Your task to perform on an android device: Search for "asus zenbook" on target.com, select the first entry, and add it to the cart. Image 0: 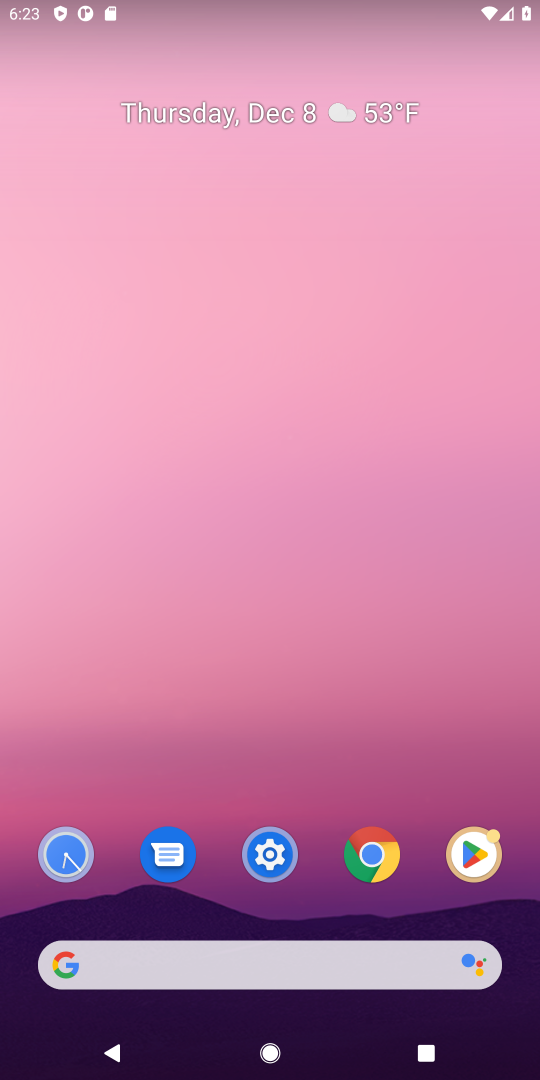
Step 0: press home button
Your task to perform on an android device: Search for "asus zenbook" on target.com, select the first entry, and add it to the cart. Image 1: 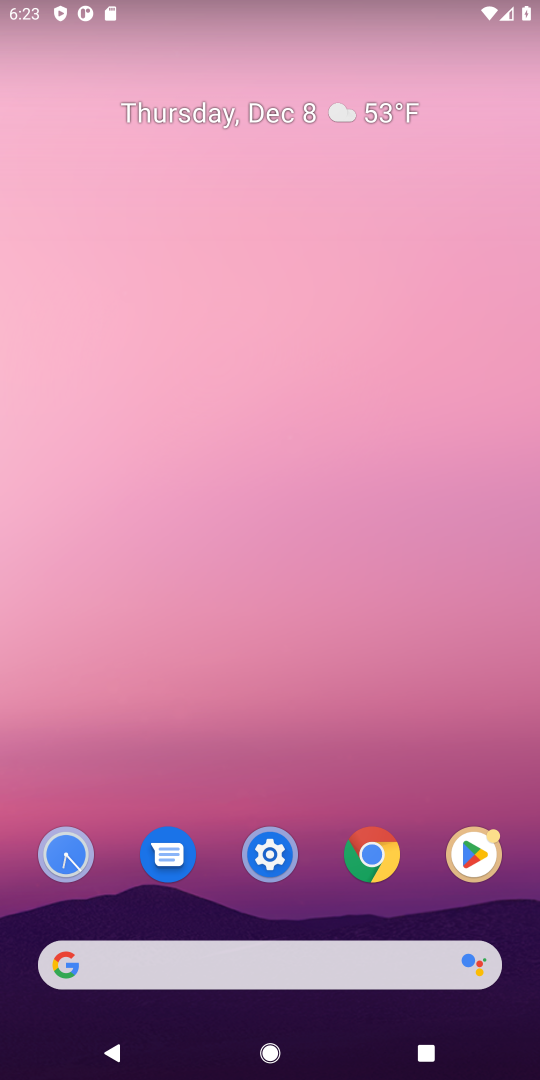
Step 1: click (96, 968)
Your task to perform on an android device: Search for "asus zenbook" on target.com, select the first entry, and add it to the cart. Image 2: 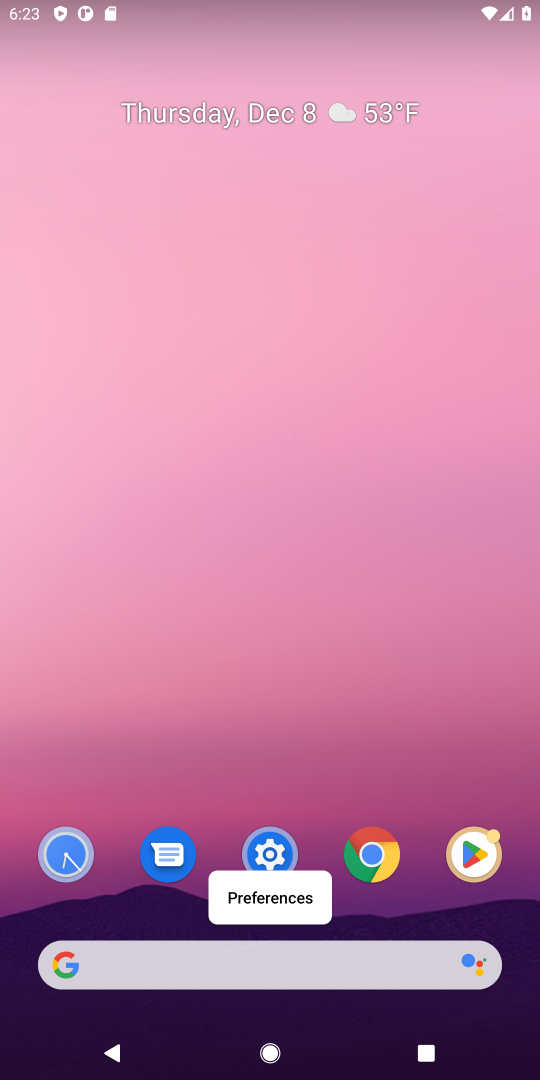
Step 2: click (99, 962)
Your task to perform on an android device: Search for "asus zenbook" on target.com, select the first entry, and add it to the cart. Image 3: 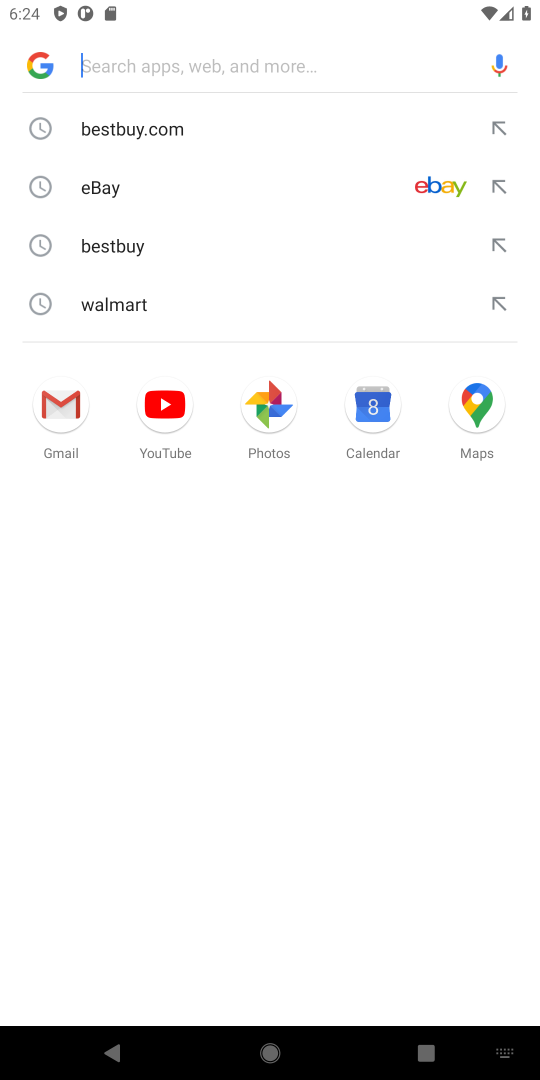
Step 3: type "target.com"
Your task to perform on an android device: Search for "asus zenbook" on target.com, select the first entry, and add it to the cart. Image 4: 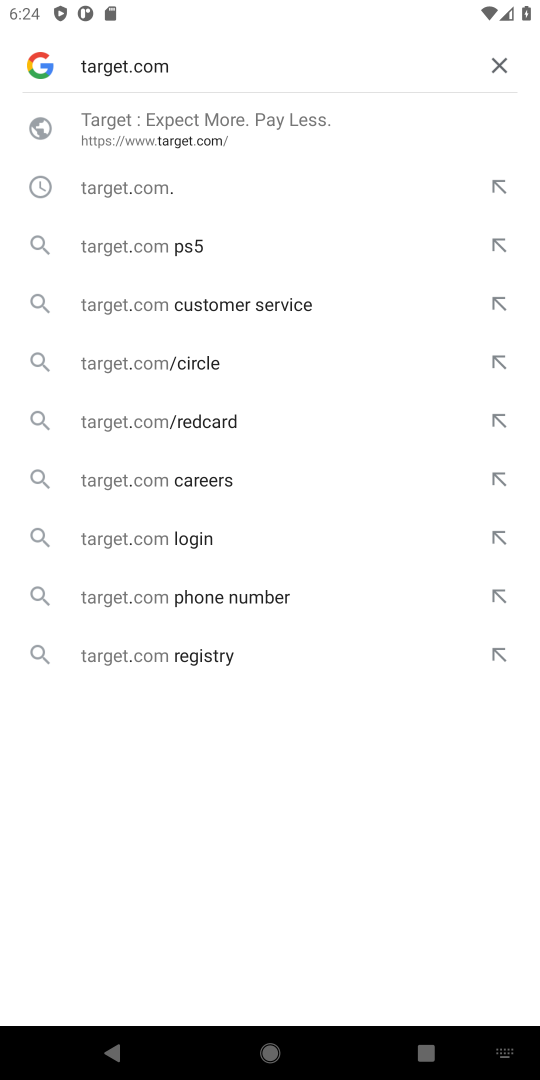
Step 4: press enter
Your task to perform on an android device: Search for "asus zenbook" on target.com, select the first entry, and add it to the cart. Image 5: 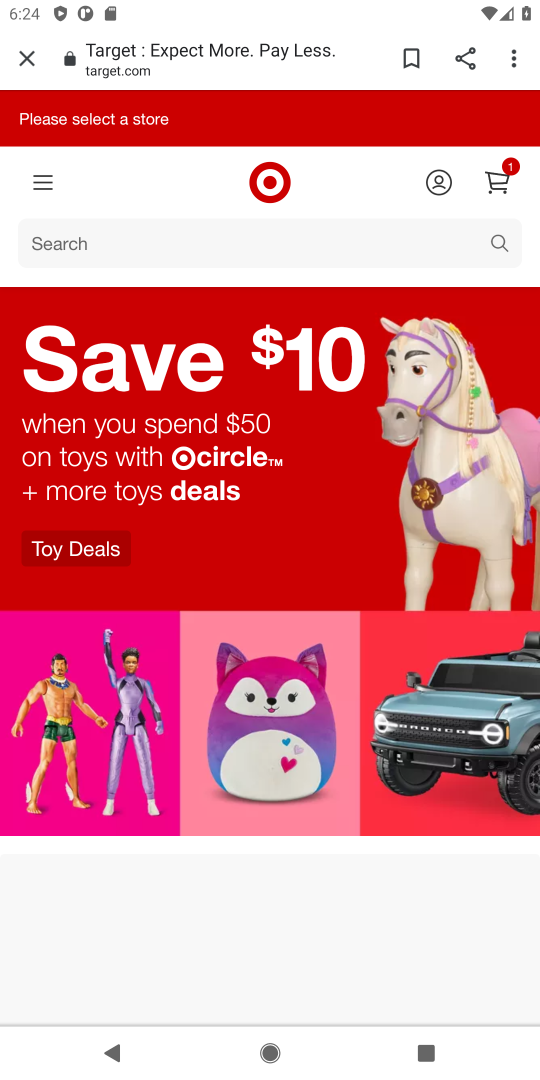
Step 5: click (49, 244)
Your task to perform on an android device: Search for "asus zenbook" on target.com, select the first entry, and add it to the cart. Image 6: 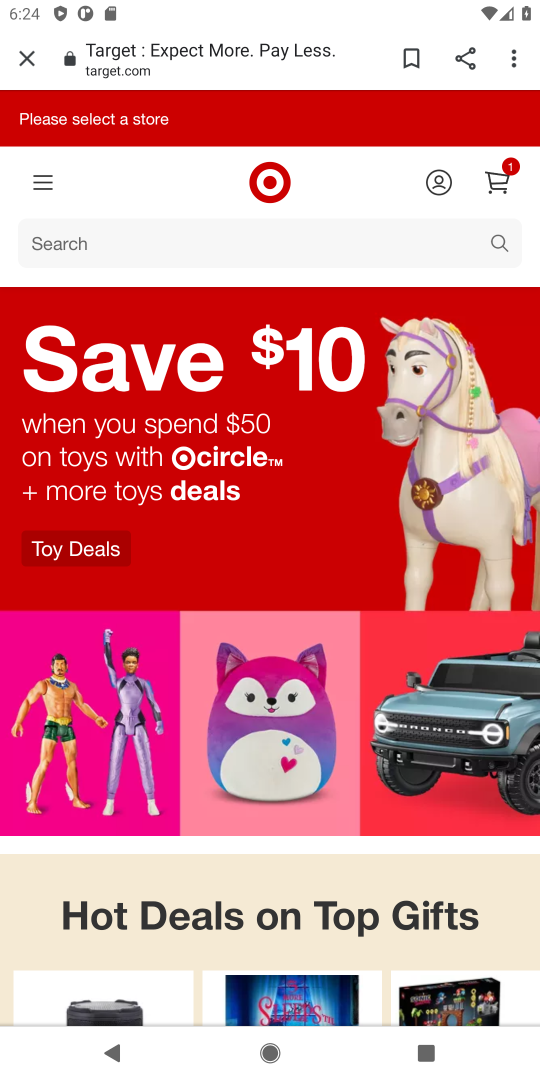
Step 6: click (61, 234)
Your task to perform on an android device: Search for "asus zenbook" on target.com, select the first entry, and add it to the cart. Image 7: 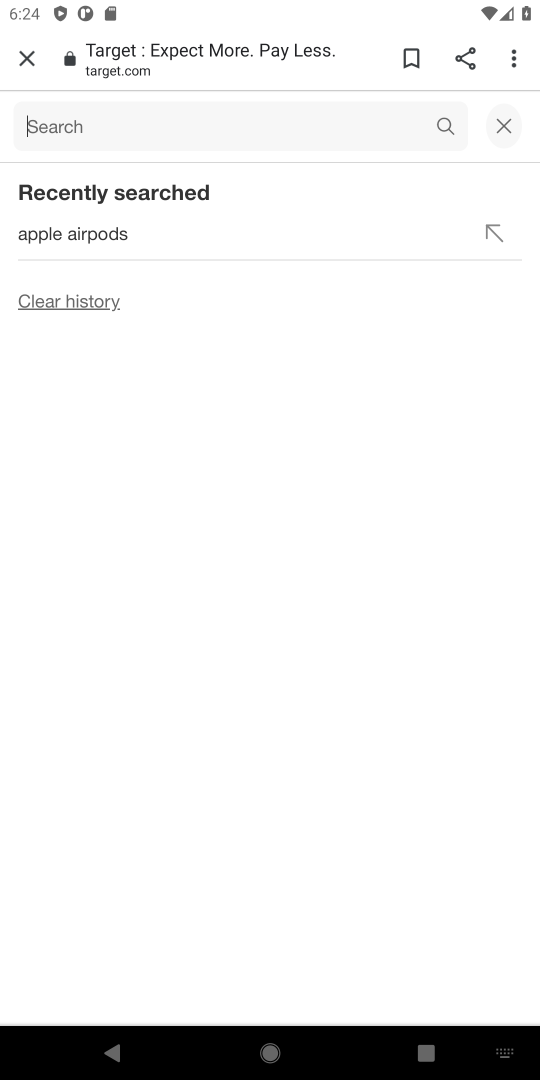
Step 7: type "asus zenbook"
Your task to perform on an android device: Search for "asus zenbook" on target.com, select the first entry, and add it to the cart. Image 8: 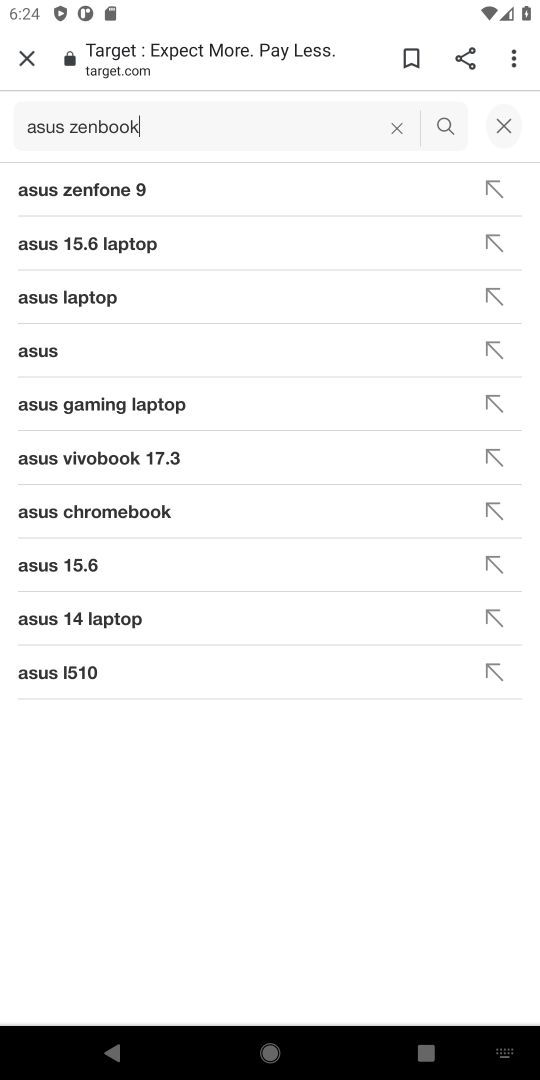
Step 8: press enter
Your task to perform on an android device: Search for "asus zenbook" on target.com, select the first entry, and add it to the cart. Image 9: 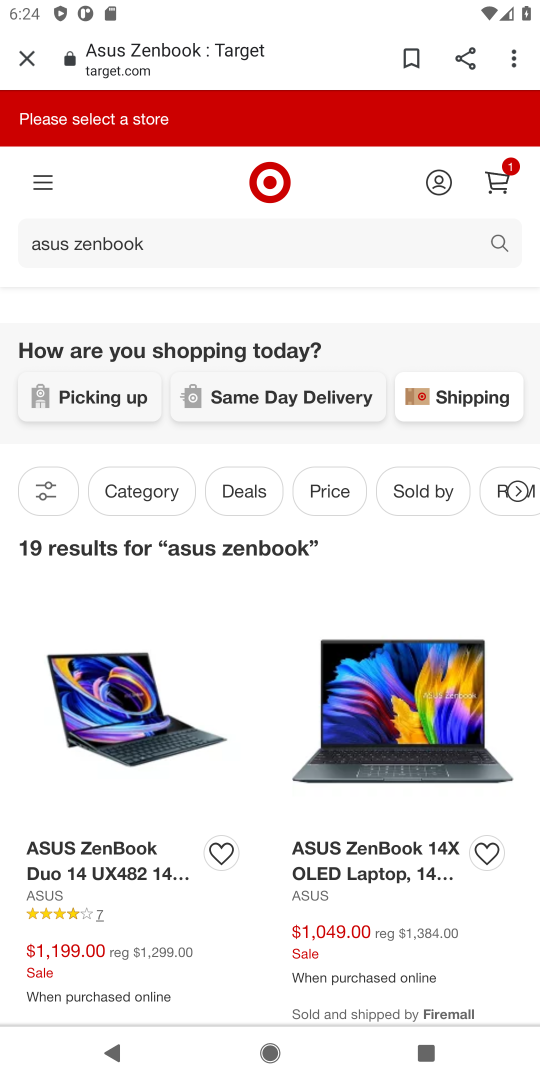
Step 9: click (103, 861)
Your task to perform on an android device: Search for "asus zenbook" on target.com, select the first entry, and add it to the cart. Image 10: 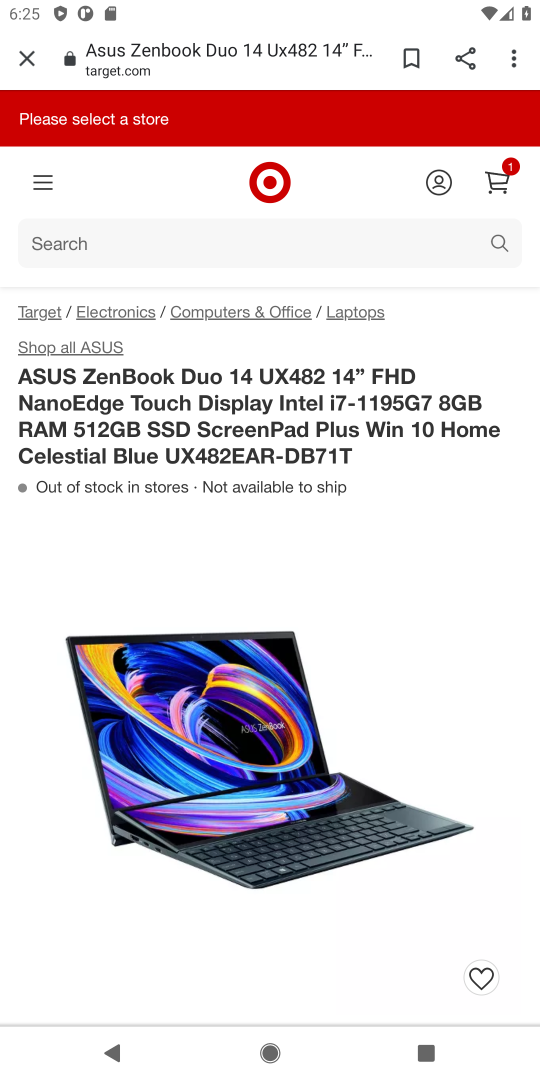
Step 10: drag from (354, 909) to (402, 370)
Your task to perform on an android device: Search for "asus zenbook" on target.com, select the first entry, and add it to the cart. Image 11: 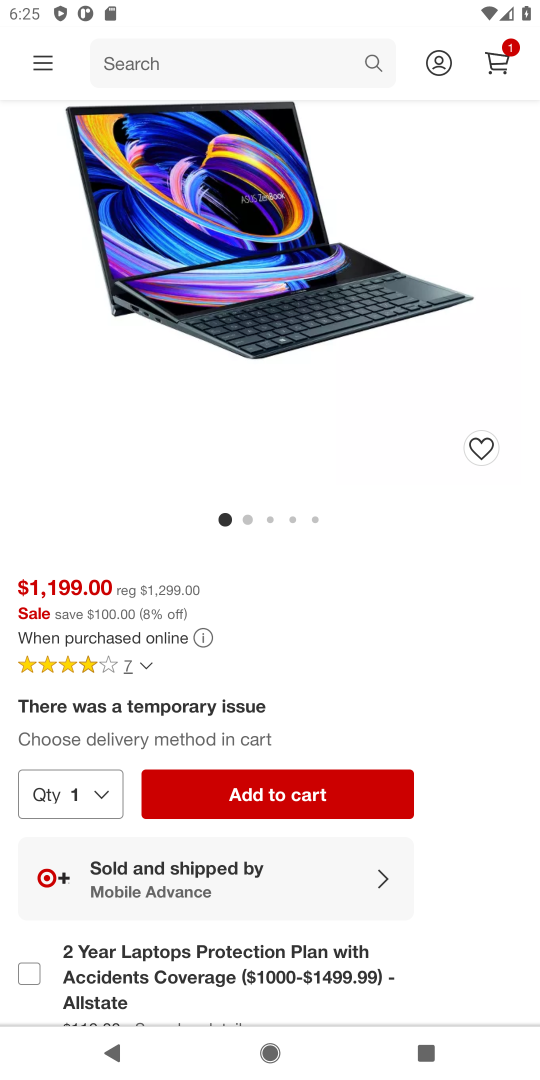
Step 11: click (284, 793)
Your task to perform on an android device: Search for "asus zenbook" on target.com, select the first entry, and add it to the cart. Image 12: 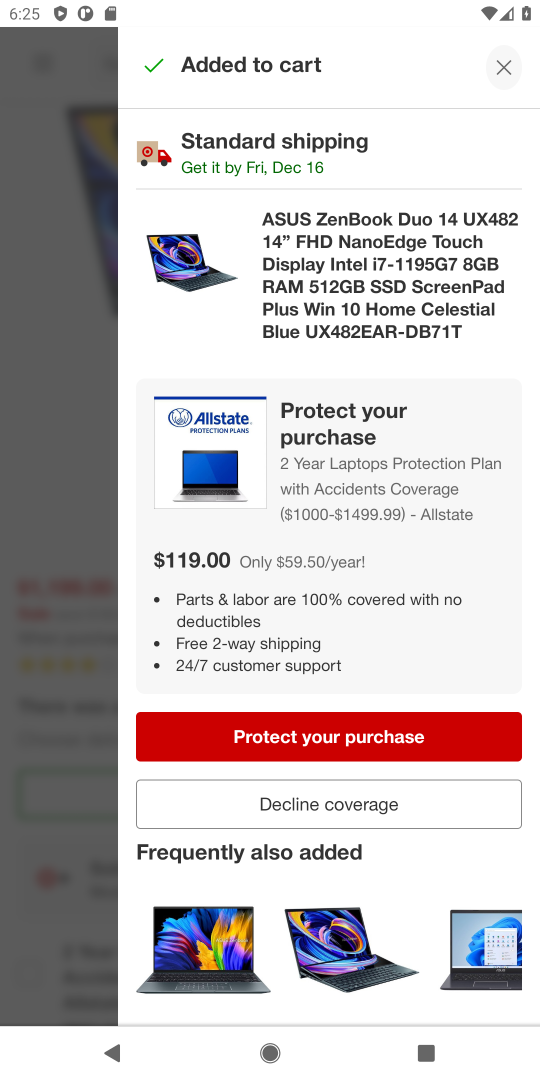
Step 12: task complete